Your task to perform on an android device: open app "LiveIn - Share Your Moment" Image 0: 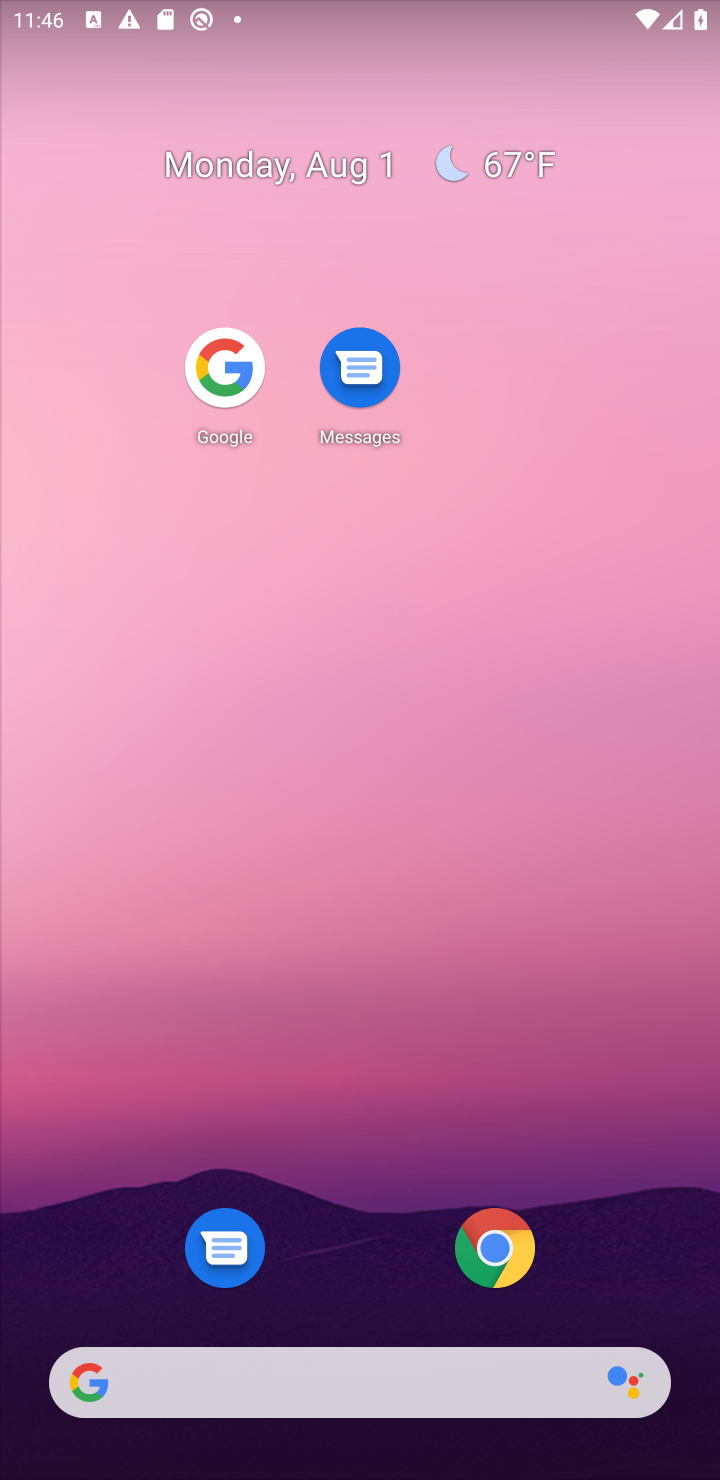
Step 0: drag from (663, 1244) to (524, 341)
Your task to perform on an android device: open app "LiveIn - Share Your Moment" Image 1: 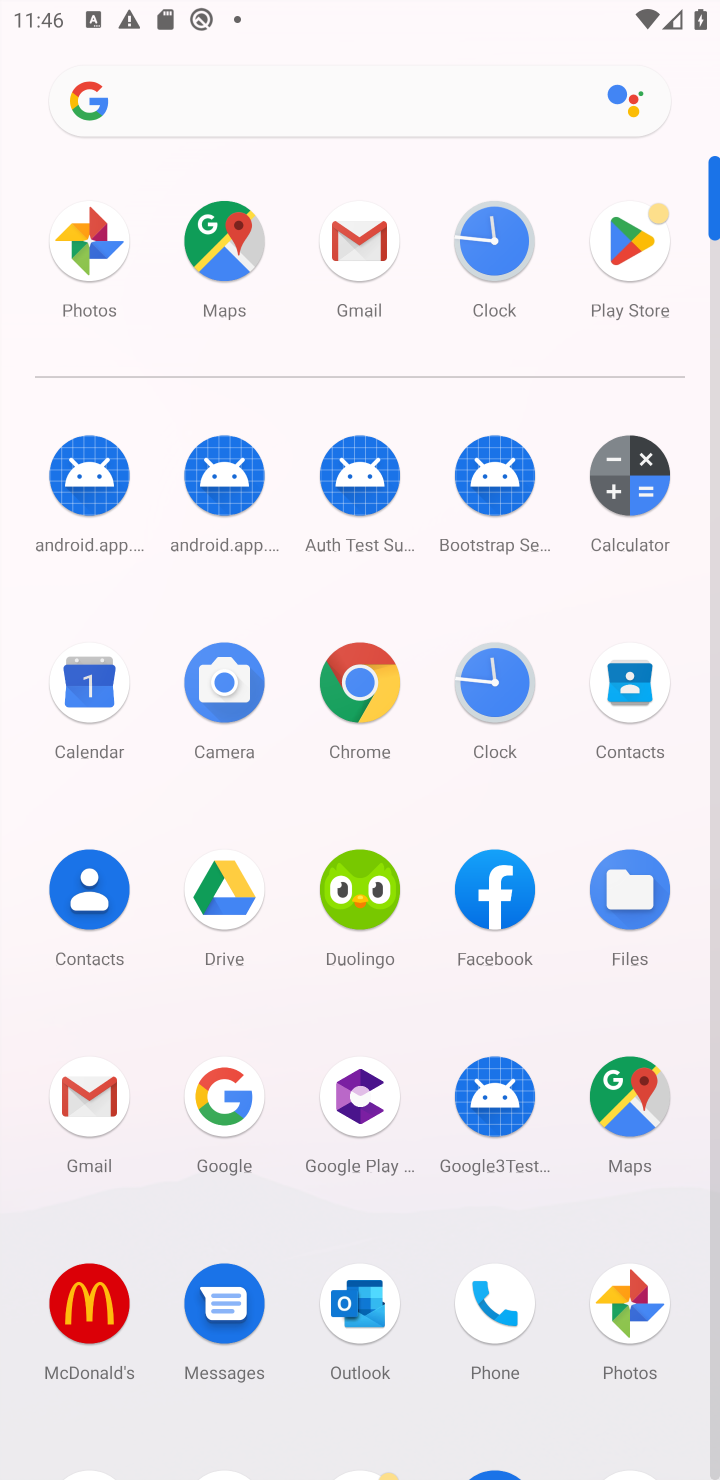
Step 1: drag from (432, 1193) to (383, 554)
Your task to perform on an android device: open app "LiveIn - Share Your Moment" Image 2: 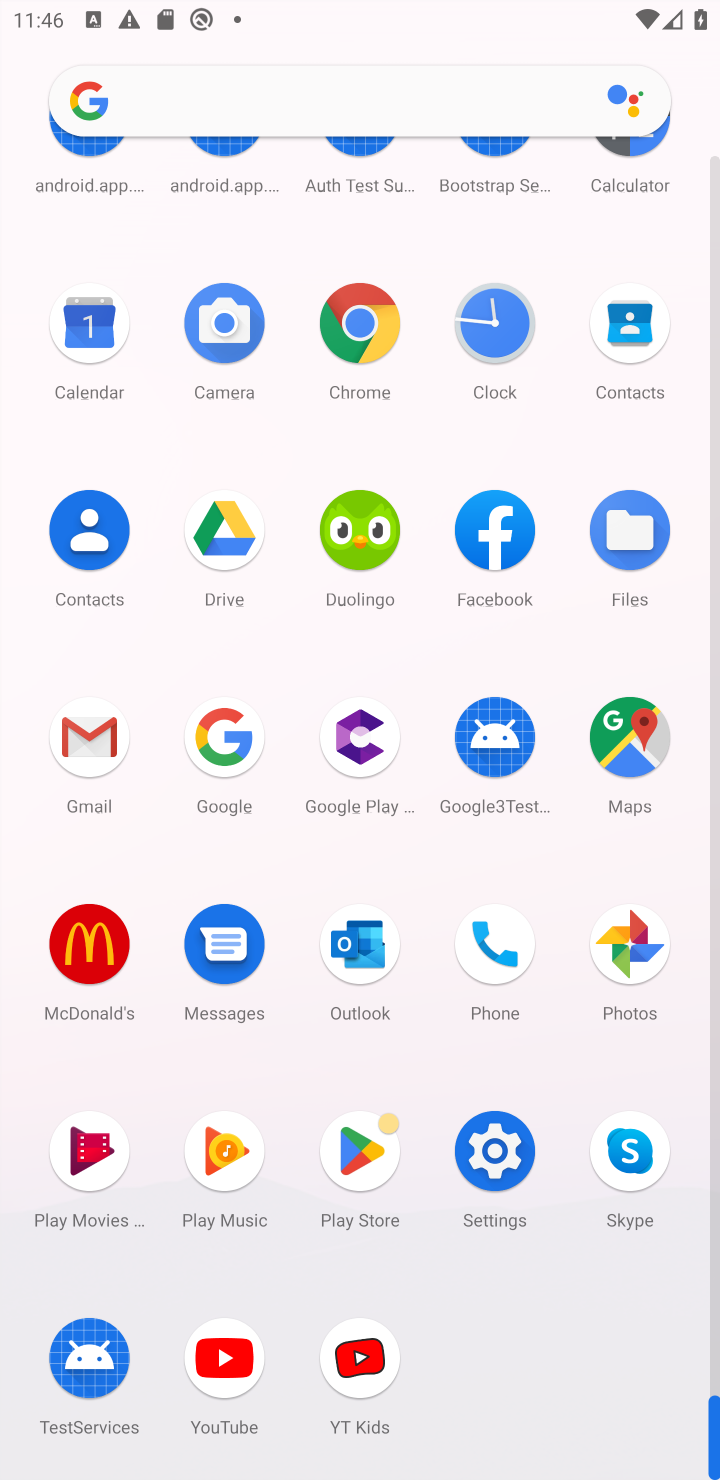
Step 2: click (374, 1136)
Your task to perform on an android device: open app "LiveIn - Share Your Moment" Image 3: 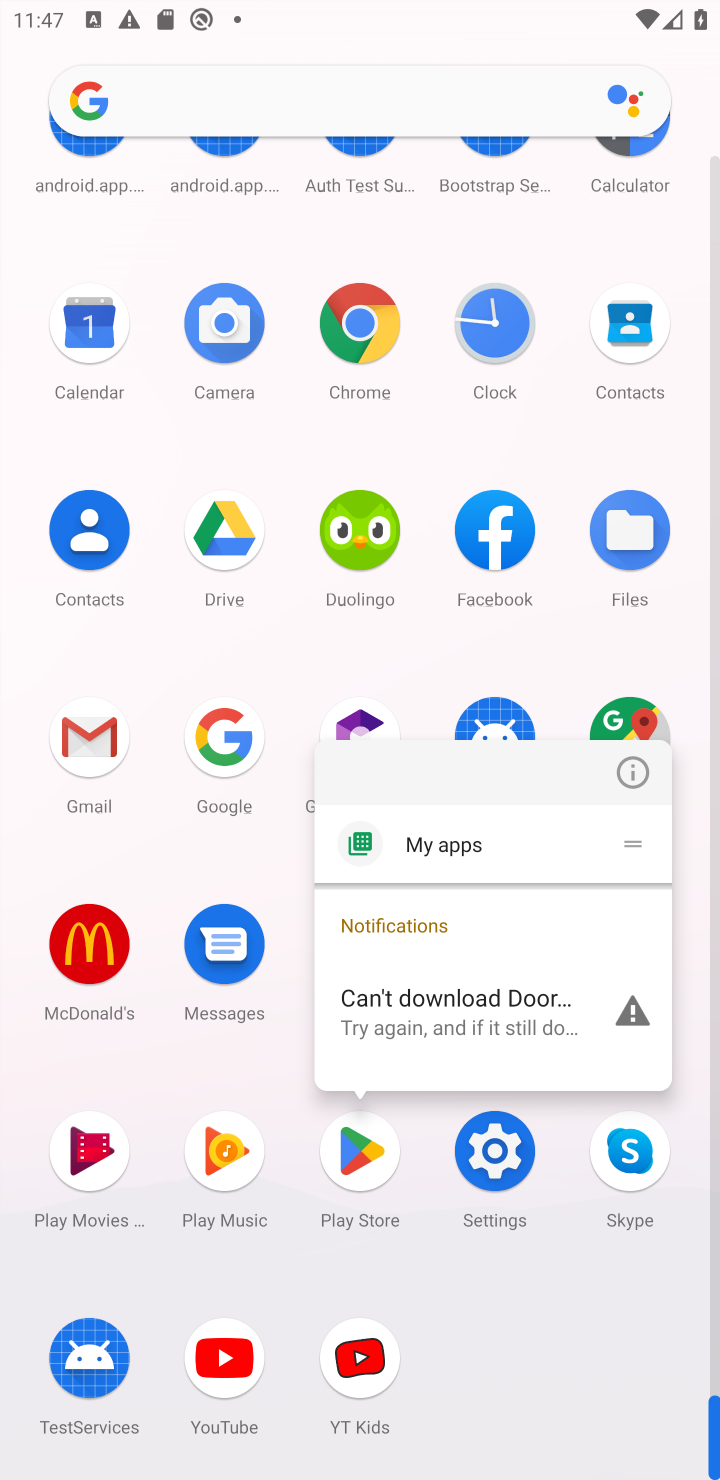
Step 3: click (371, 1149)
Your task to perform on an android device: open app "LiveIn - Share Your Moment" Image 4: 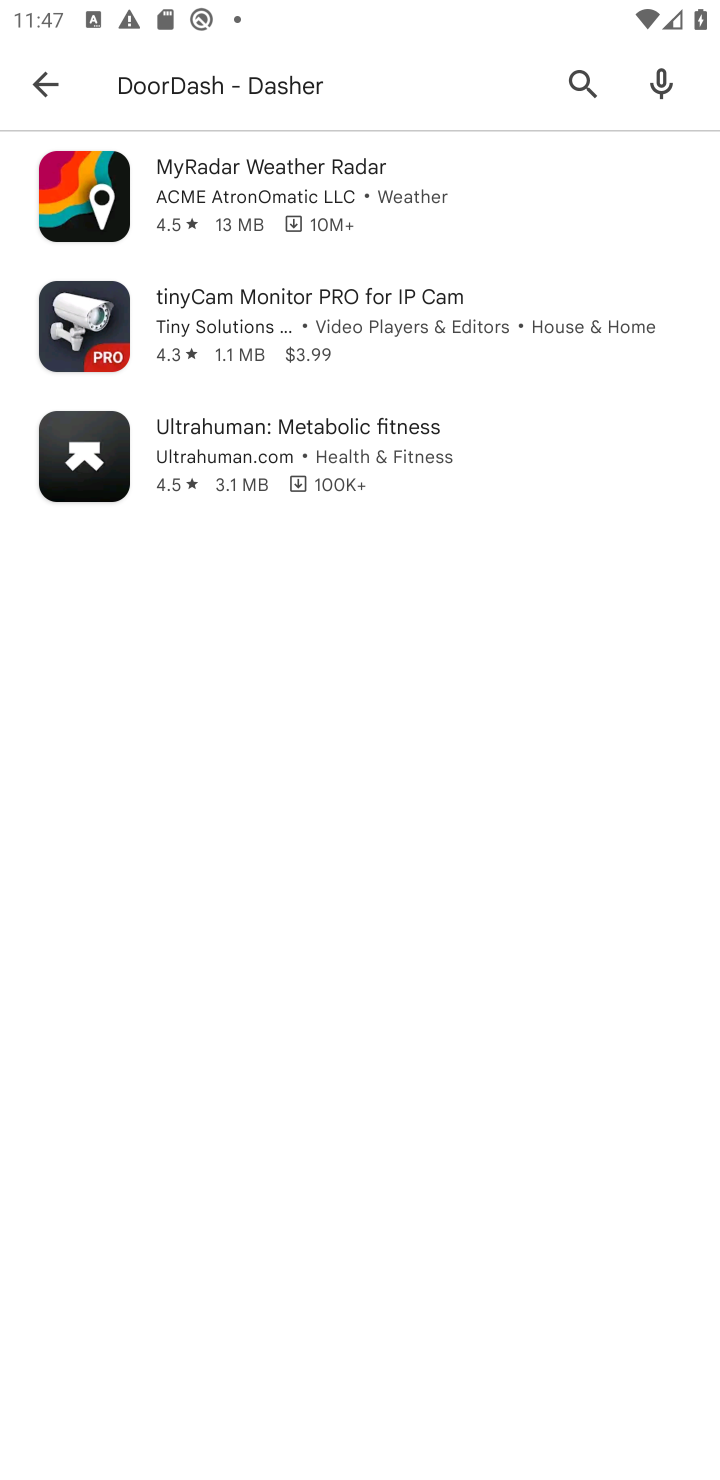
Step 4: click (432, 87)
Your task to perform on an android device: open app "LiveIn - Share Your Moment" Image 5: 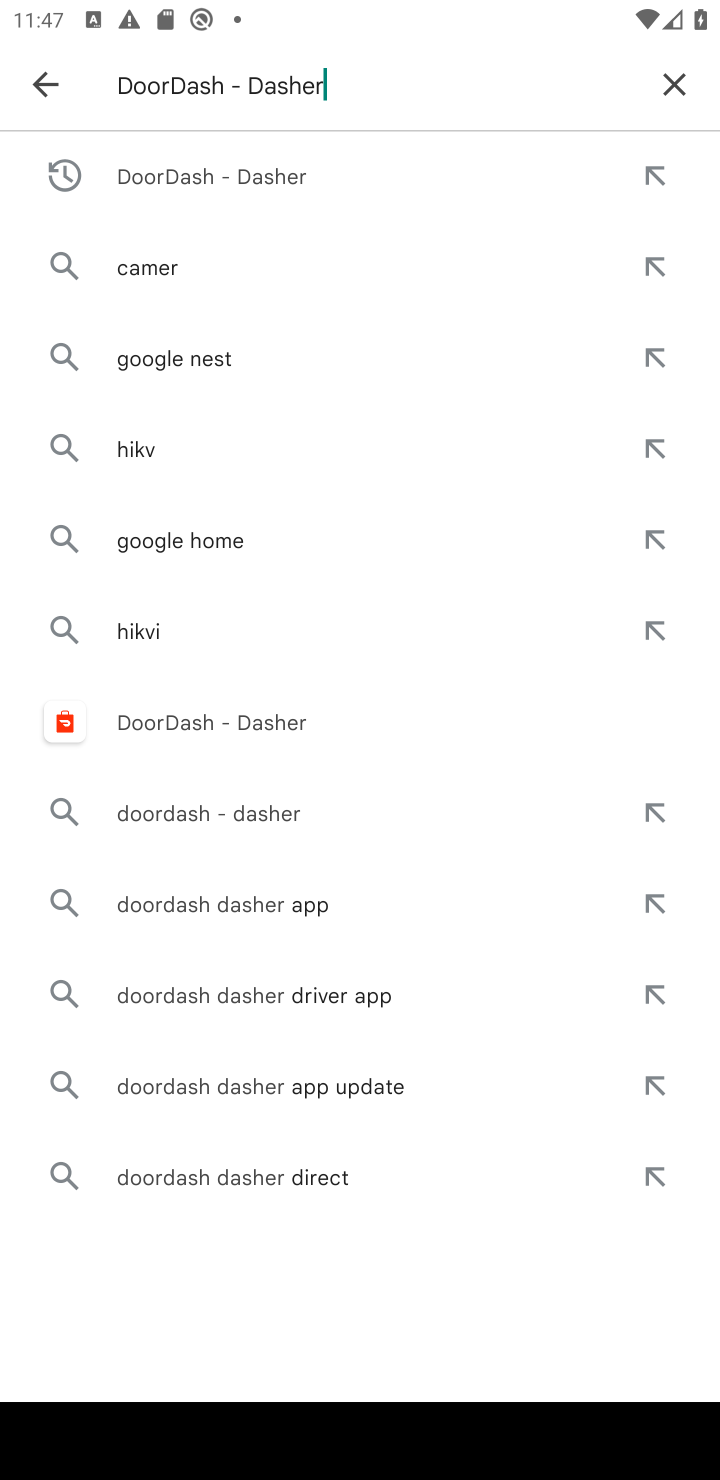
Step 5: click (675, 78)
Your task to perform on an android device: open app "LiveIn - Share Your Moment" Image 6: 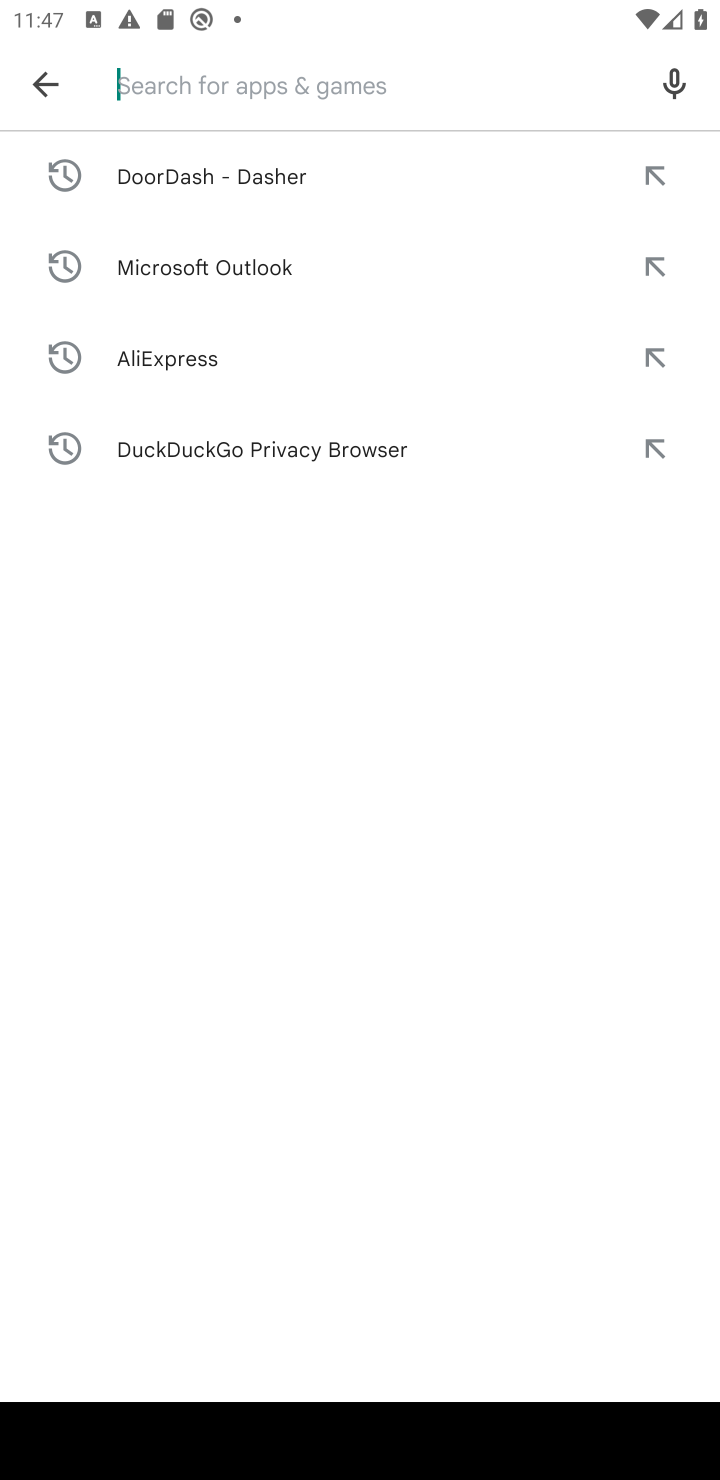
Step 6: type "Liveln - Share Your Moment"
Your task to perform on an android device: open app "LiveIn - Share Your Moment" Image 7: 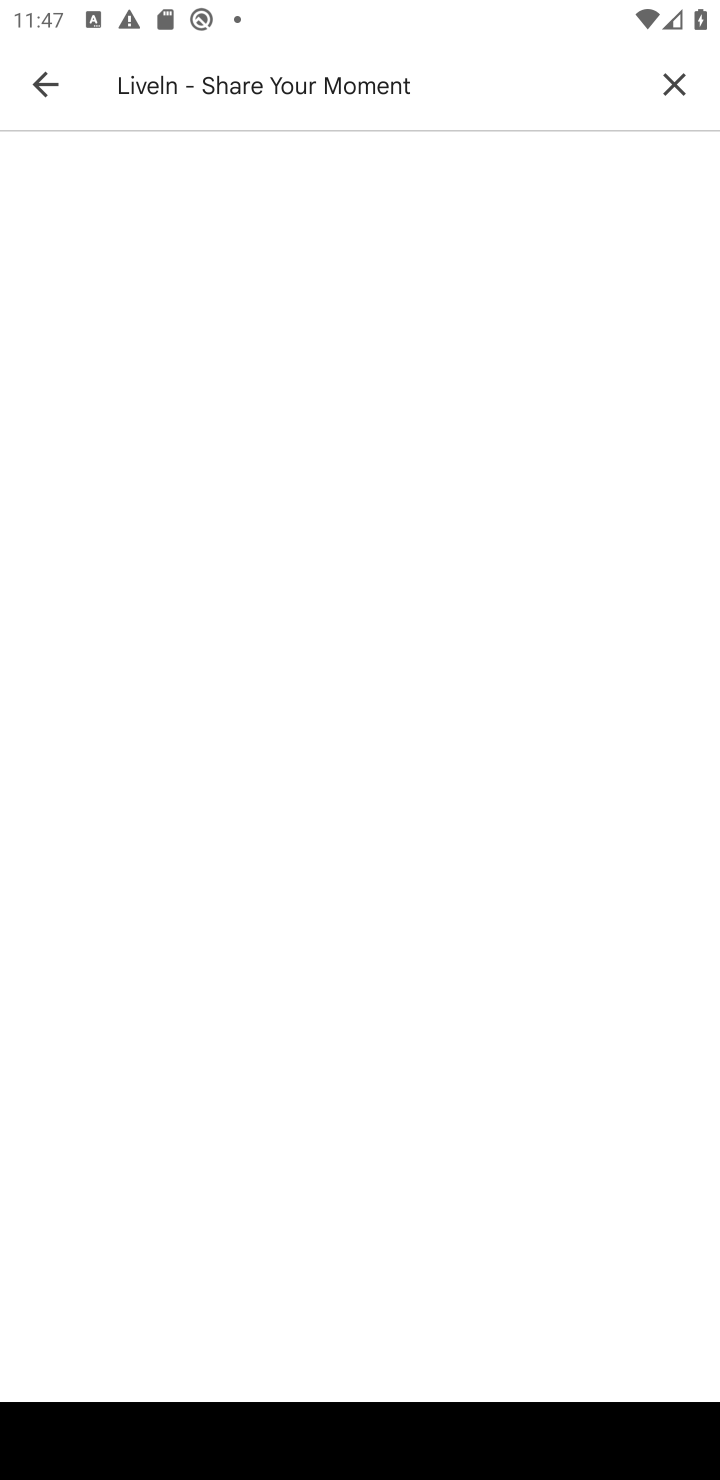
Step 7: press enter
Your task to perform on an android device: open app "LiveIn - Share Your Moment" Image 8: 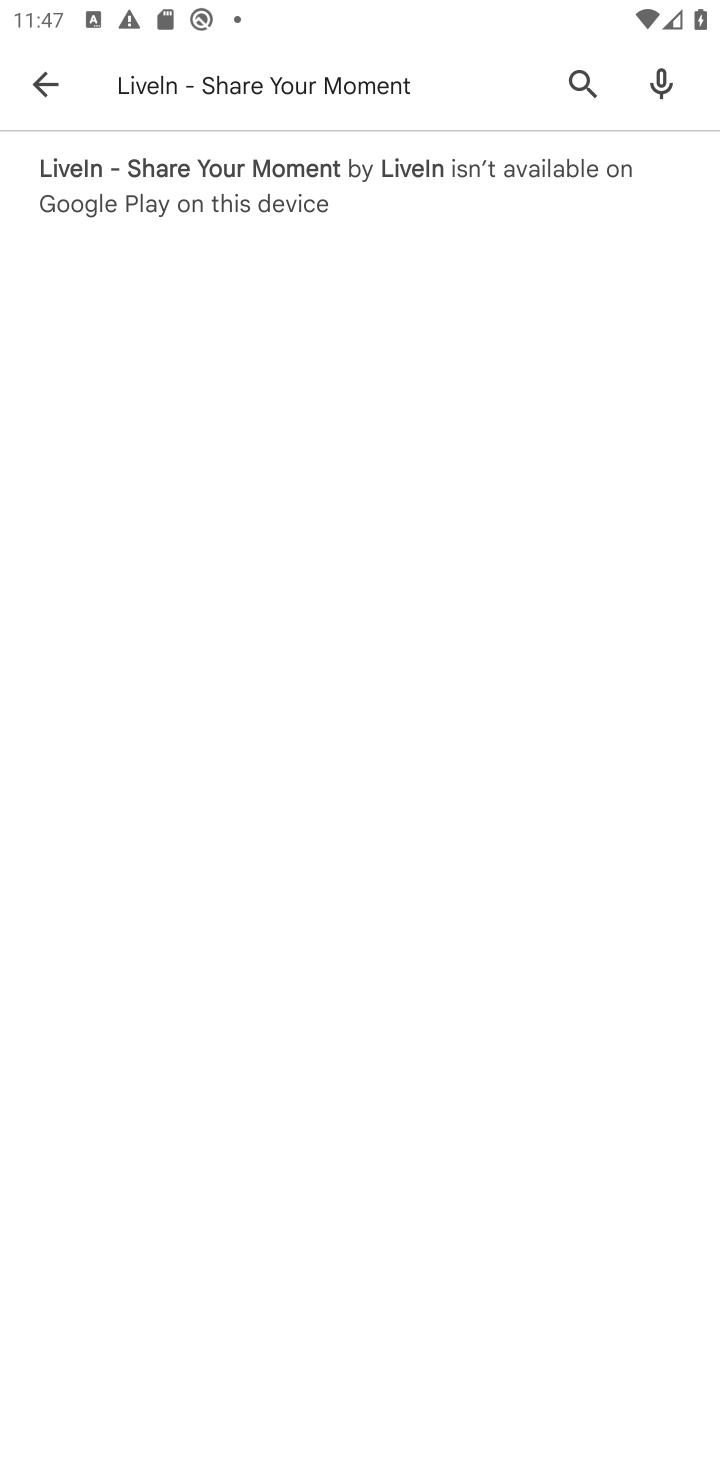
Step 8: press enter
Your task to perform on an android device: open app "LiveIn - Share Your Moment" Image 9: 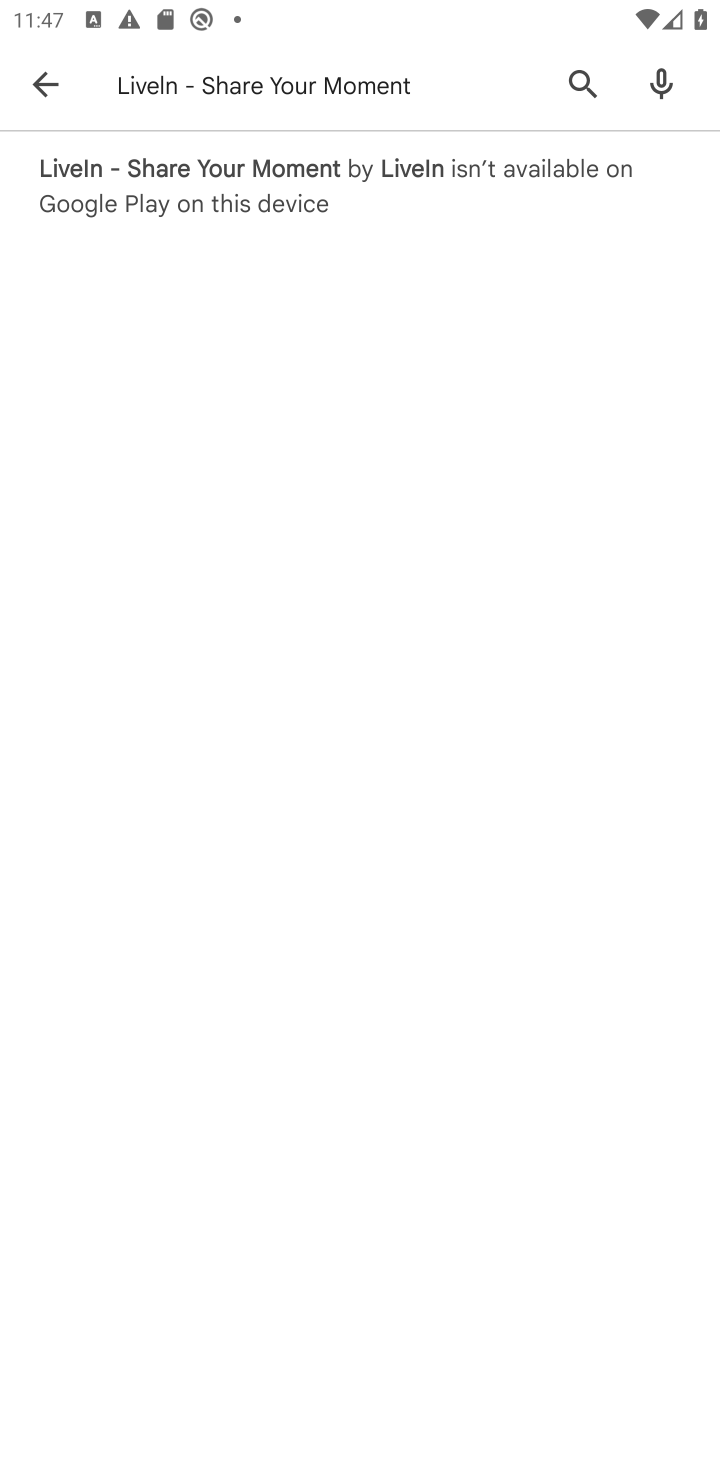
Step 9: task complete